Your task to perform on an android device: Go to location settings Image 0: 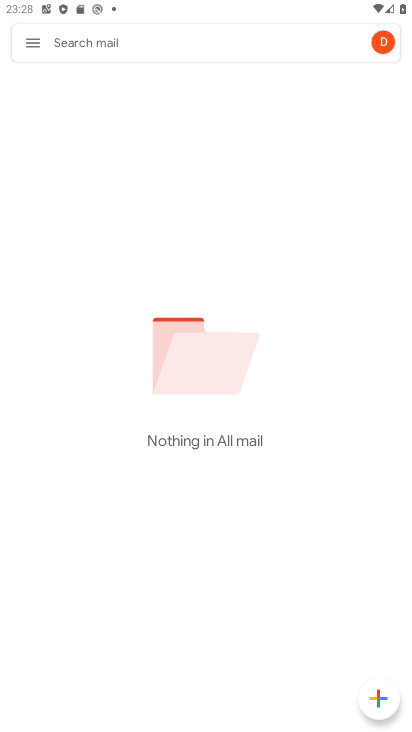
Step 0: press home button
Your task to perform on an android device: Go to location settings Image 1: 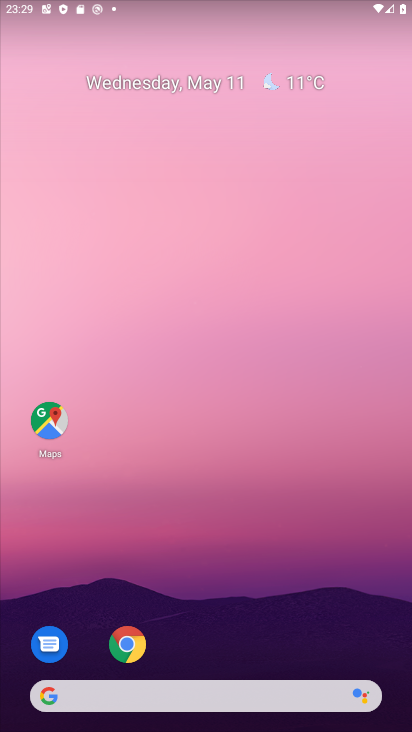
Step 1: drag from (206, 649) to (224, 143)
Your task to perform on an android device: Go to location settings Image 2: 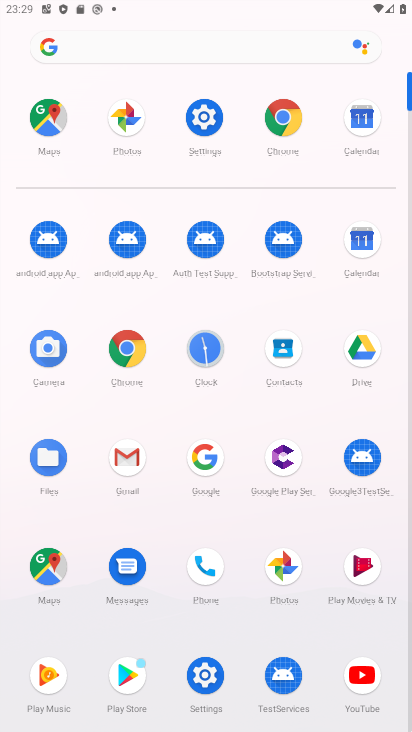
Step 2: click (196, 116)
Your task to perform on an android device: Go to location settings Image 3: 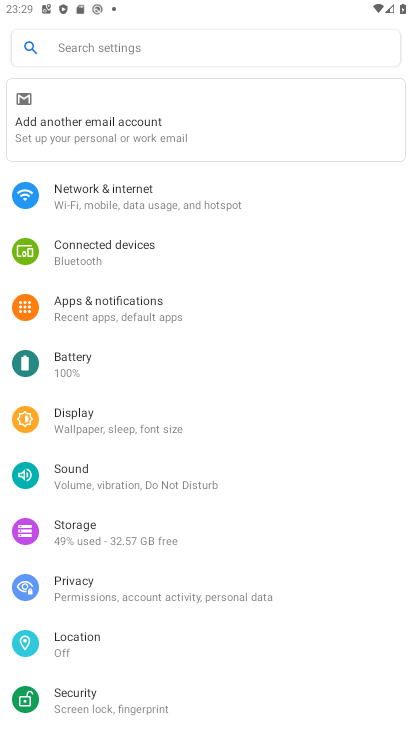
Step 3: click (101, 637)
Your task to perform on an android device: Go to location settings Image 4: 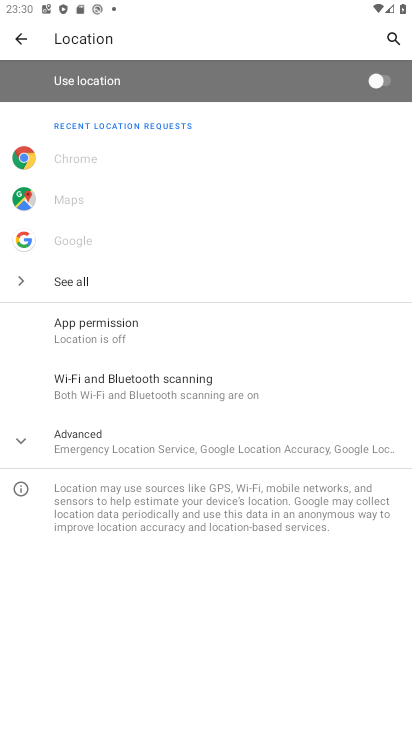
Step 4: click (20, 440)
Your task to perform on an android device: Go to location settings Image 5: 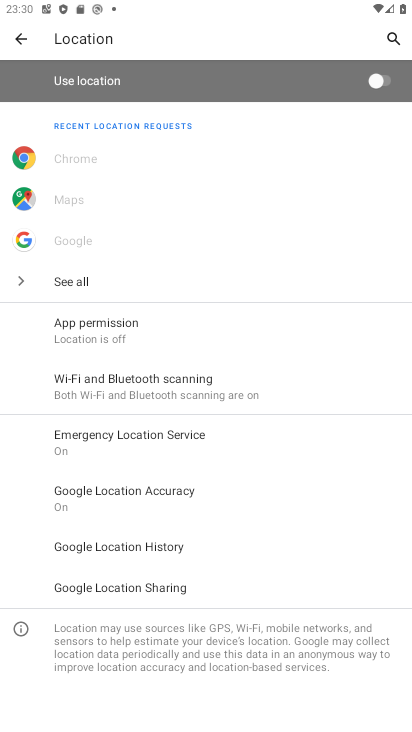
Step 5: task complete